Your task to perform on an android device: Open maps Image 0: 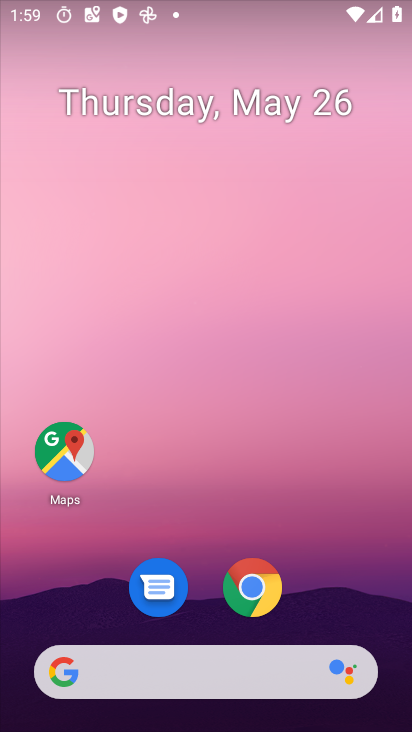
Step 0: drag from (388, 625) to (368, 259)
Your task to perform on an android device: Open maps Image 1: 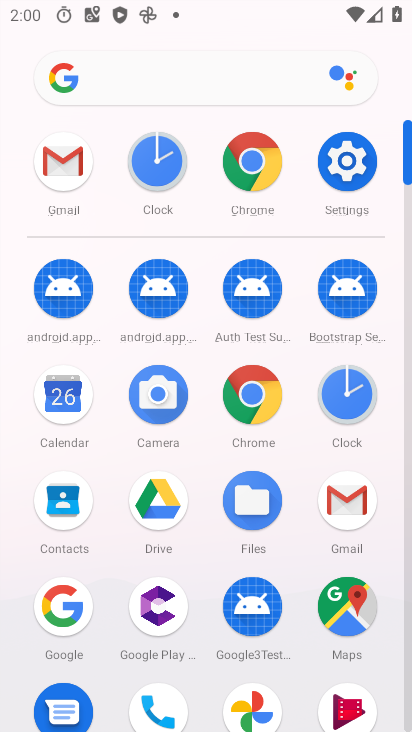
Step 1: click (366, 620)
Your task to perform on an android device: Open maps Image 2: 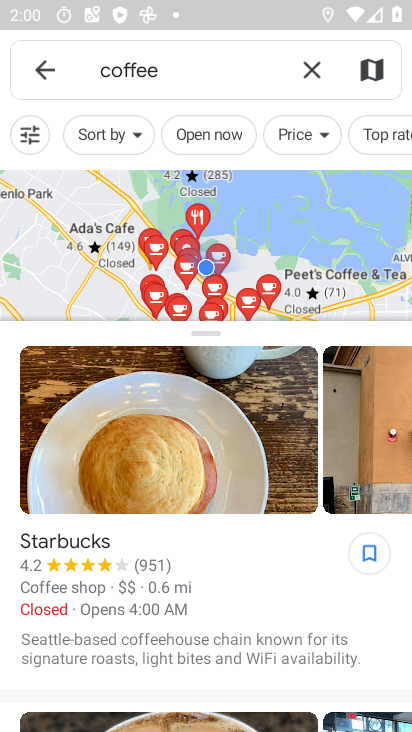
Step 2: task complete